Your task to perform on an android device: snooze an email in the gmail app Image 0: 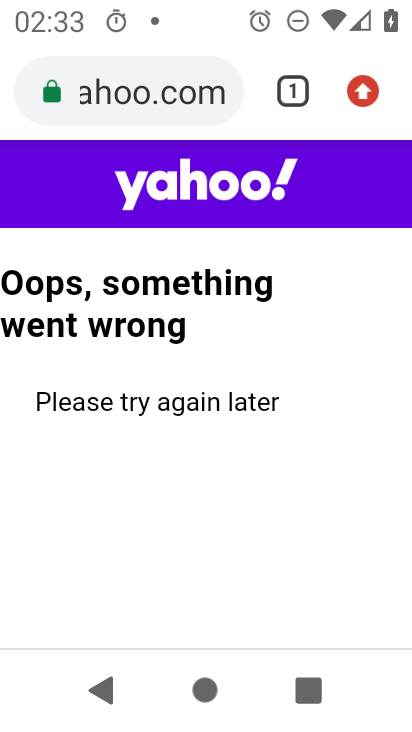
Step 0: press home button
Your task to perform on an android device: snooze an email in the gmail app Image 1: 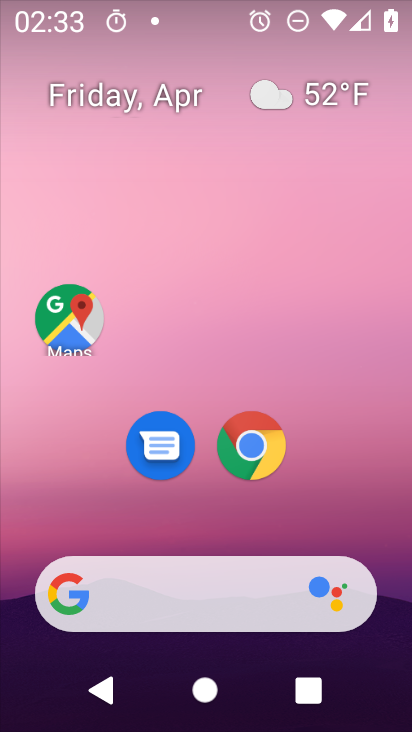
Step 1: drag from (360, 514) to (363, 86)
Your task to perform on an android device: snooze an email in the gmail app Image 2: 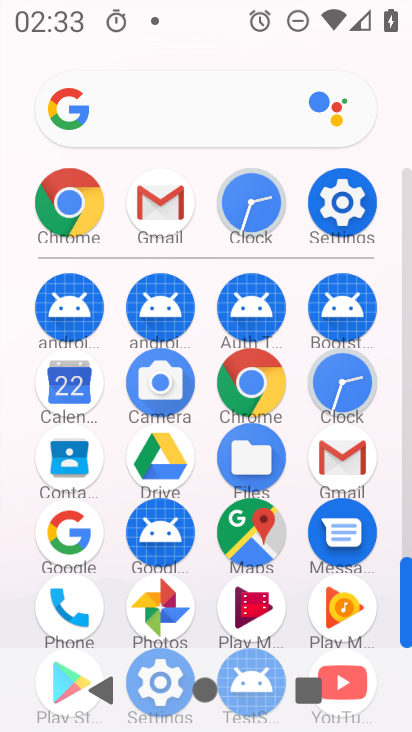
Step 2: click (353, 463)
Your task to perform on an android device: snooze an email in the gmail app Image 3: 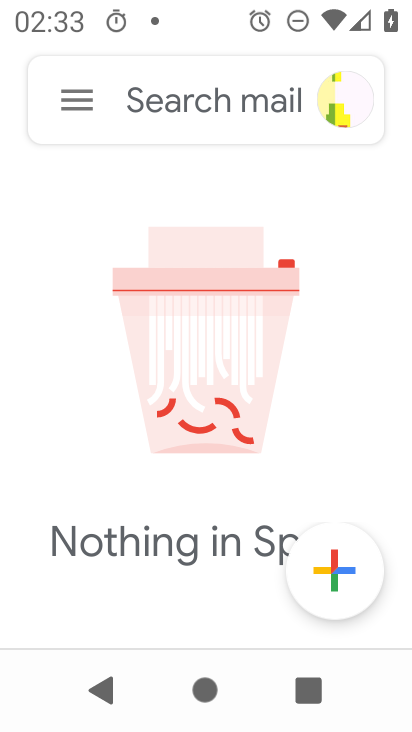
Step 3: click (81, 109)
Your task to perform on an android device: snooze an email in the gmail app Image 4: 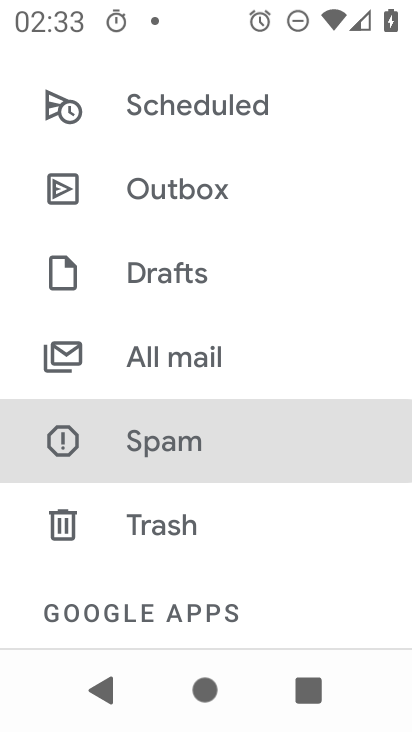
Step 4: drag from (320, 532) to (348, 297)
Your task to perform on an android device: snooze an email in the gmail app Image 5: 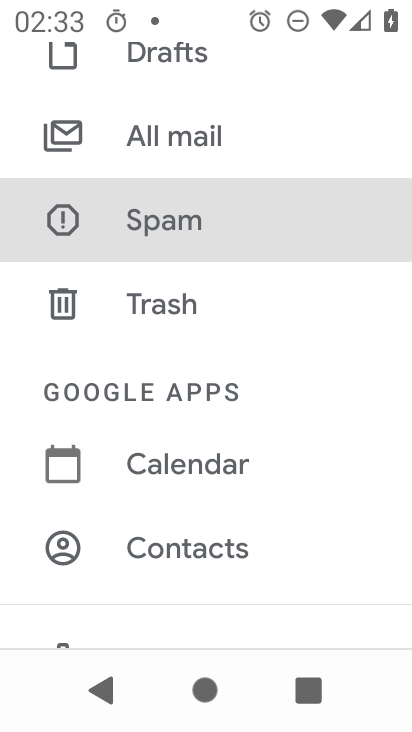
Step 5: drag from (345, 297) to (337, 446)
Your task to perform on an android device: snooze an email in the gmail app Image 6: 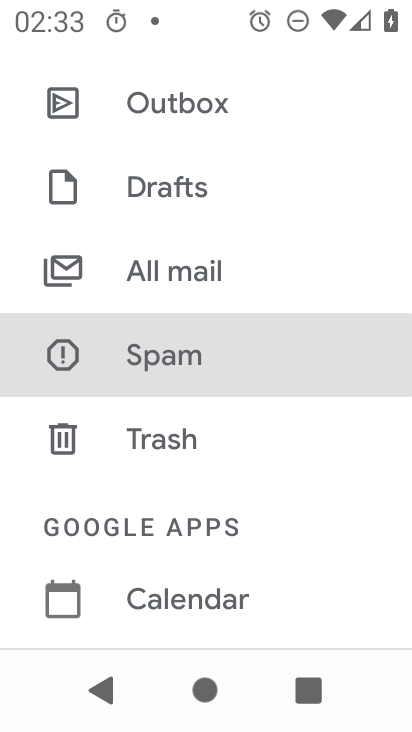
Step 6: drag from (338, 256) to (338, 444)
Your task to perform on an android device: snooze an email in the gmail app Image 7: 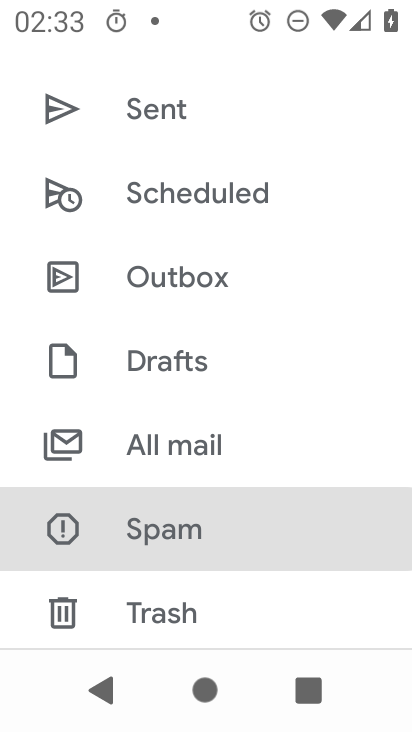
Step 7: drag from (343, 332) to (359, 465)
Your task to perform on an android device: snooze an email in the gmail app Image 8: 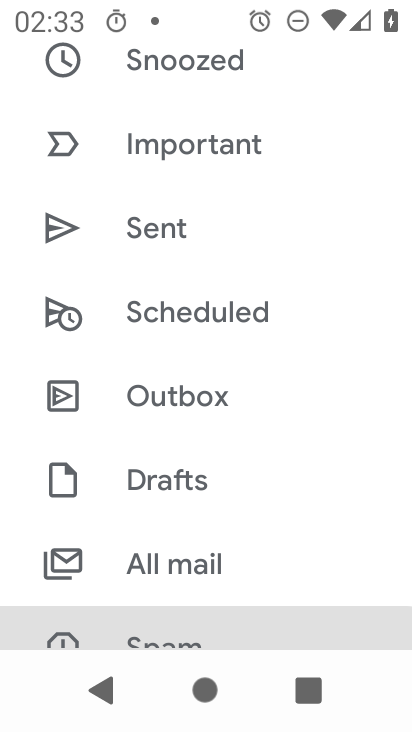
Step 8: drag from (326, 283) to (333, 477)
Your task to perform on an android device: snooze an email in the gmail app Image 9: 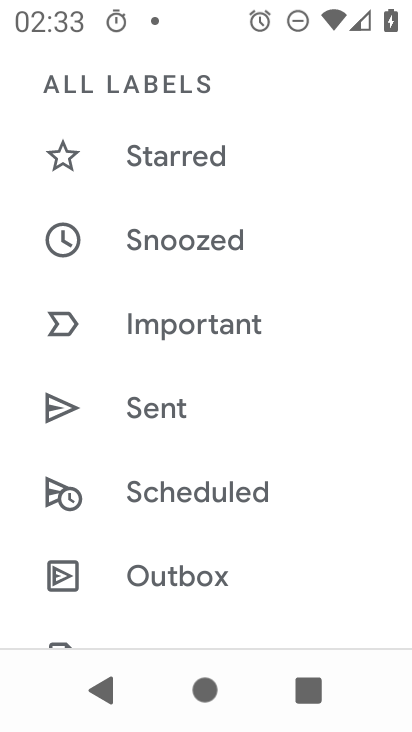
Step 9: drag from (327, 279) to (335, 428)
Your task to perform on an android device: snooze an email in the gmail app Image 10: 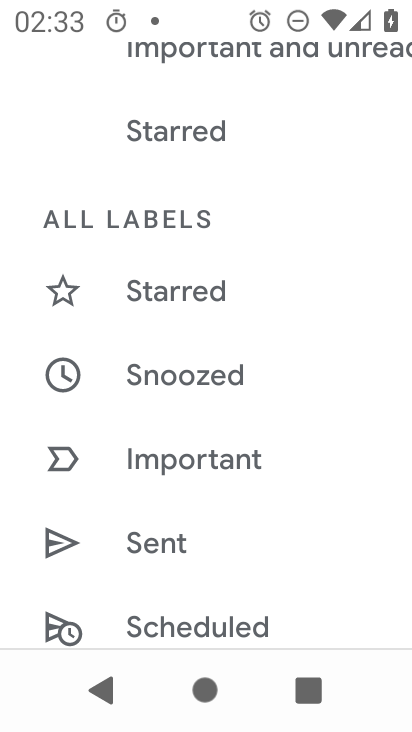
Step 10: drag from (329, 279) to (316, 421)
Your task to perform on an android device: snooze an email in the gmail app Image 11: 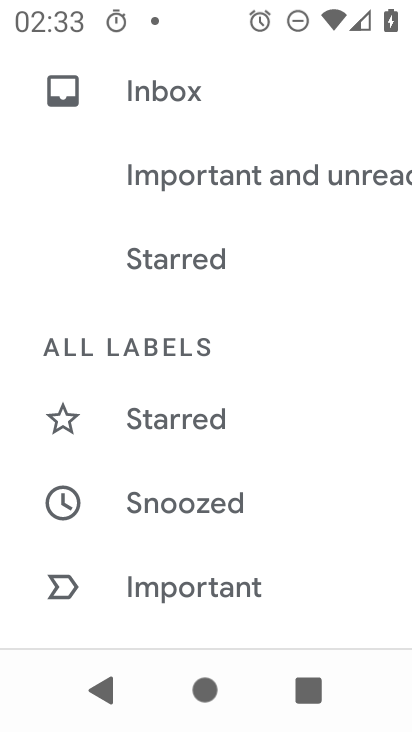
Step 11: click (210, 499)
Your task to perform on an android device: snooze an email in the gmail app Image 12: 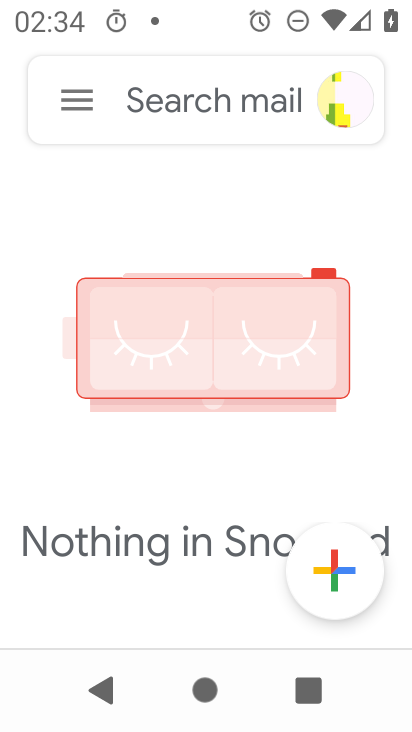
Step 12: task complete